Your task to perform on an android device: Search for "rayovac triple a" on ebay.com, select the first entry, add it to the cart, then select checkout. Image 0: 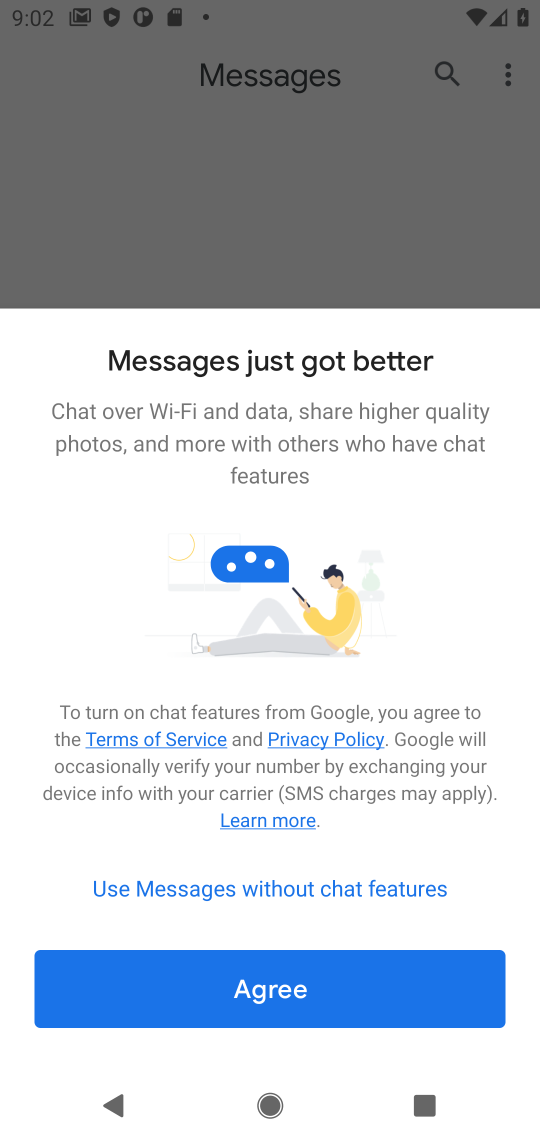
Step 0: press home button
Your task to perform on an android device: Search for "rayovac triple a" on ebay.com, select the first entry, add it to the cart, then select checkout. Image 1: 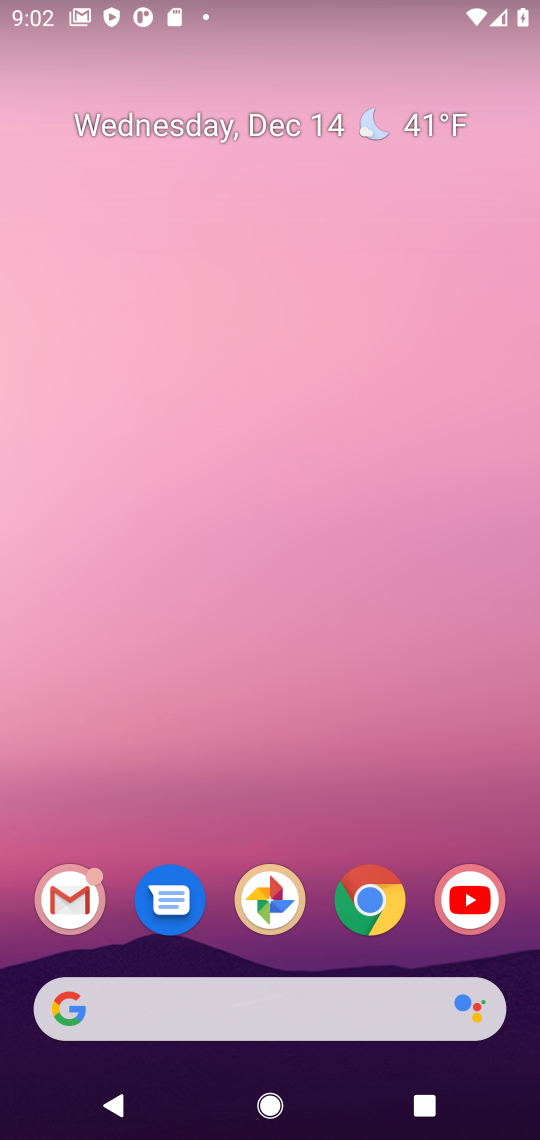
Step 1: click (361, 896)
Your task to perform on an android device: Search for "rayovac triple a" on ebay.com, select the first entry, add it to the cart, then select checkout. Image 2: 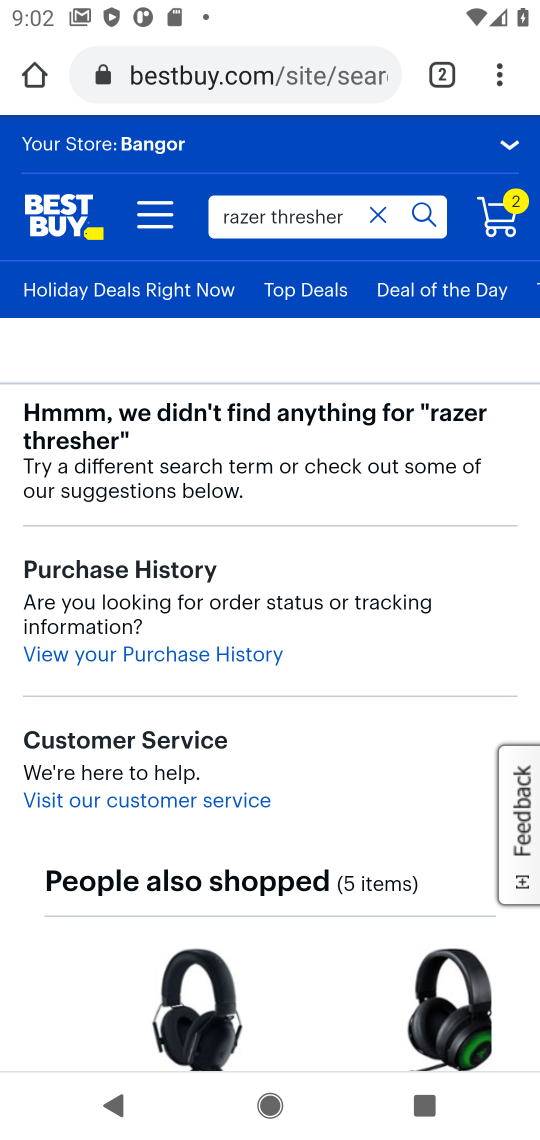
Step 2: click (214, 71)
Your task to perform on an android device: Search for "rayovac triple a" on ebay.com, select the first entry, add it to the cart, then select checkout. Image 3: 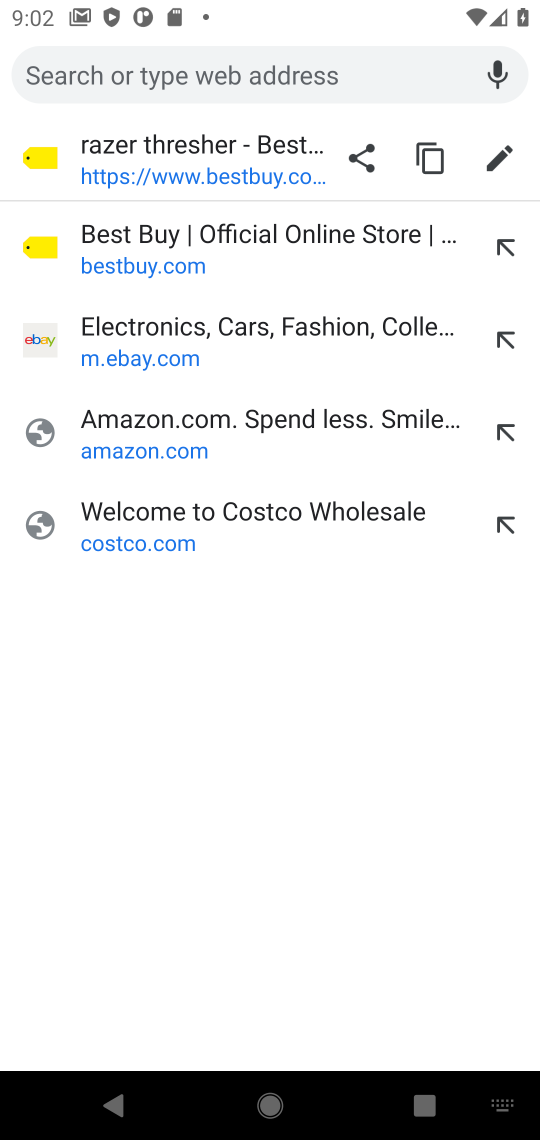
Step 3: click (133, 350)
Your task to perform on an android device: Search for "rayovac triple a" on ebay.com, select the first entry, add it to the cart, then select checkout. Image 4: 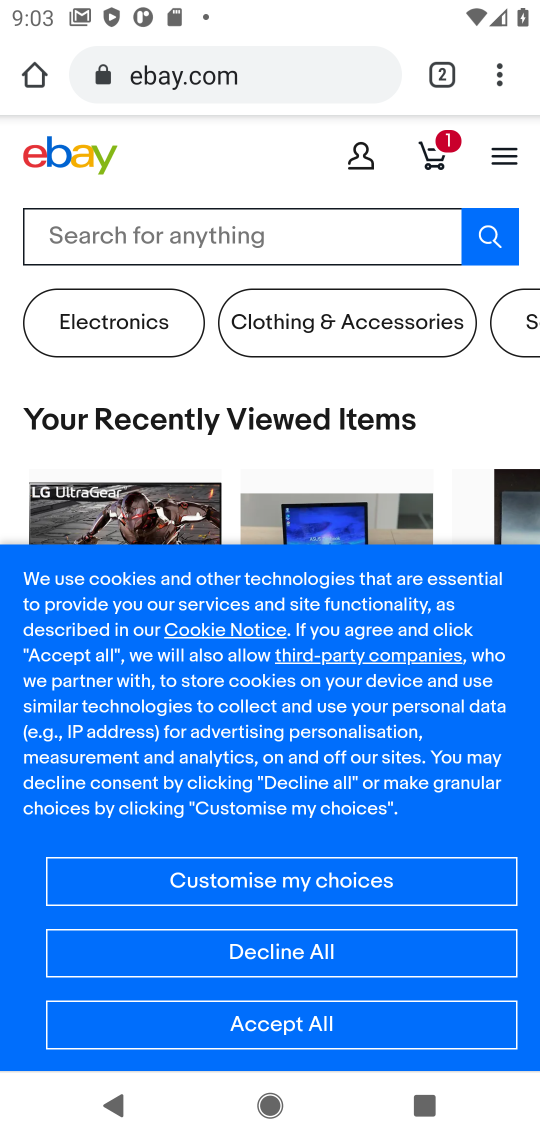
Step 4: click (164, 229)
Your task to perform on an android device: Search for "rayovac triple a" on ebay.com, select the first entry, add it to the cart, then select checkout. Image 5: 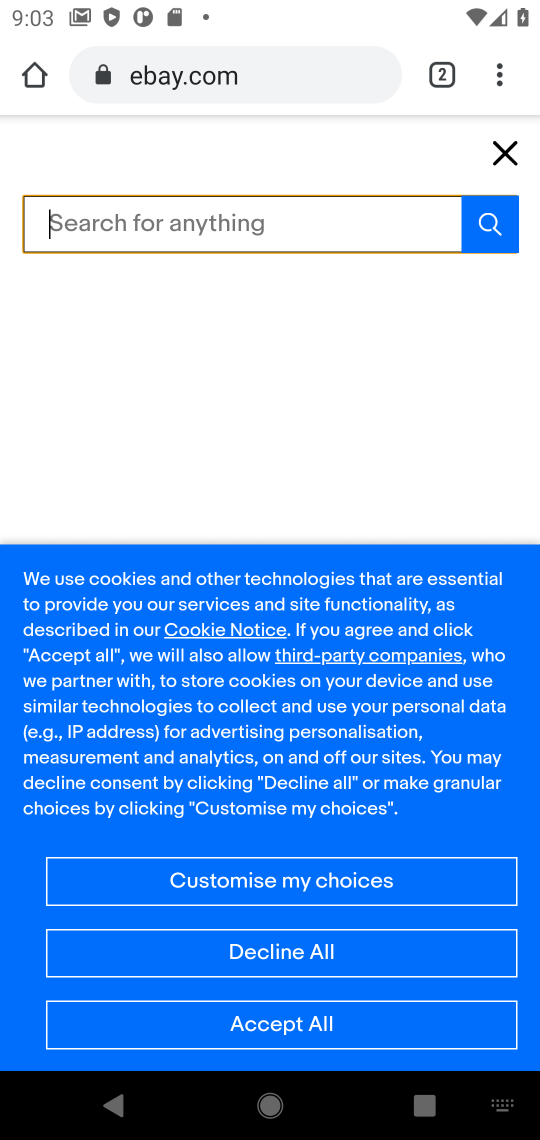
Step 5: type "rayovac triple a"
Your task to perform on an android device: Search for "rayovac triple a" on ebay.com, select the first entry, add it to the cart, then select checkout. Image 6: 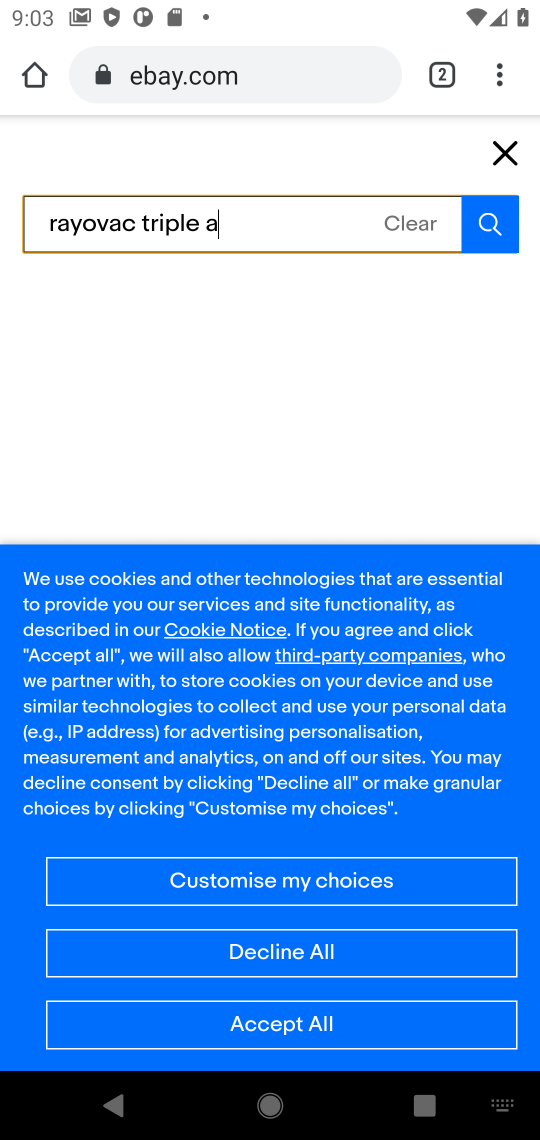
Step 6: click (486, 233)
Your task to perform on an android device: Search for "rayovac triple a" on ebay.com, select the first entry, add it to the cart, then select checkout. Image 7: 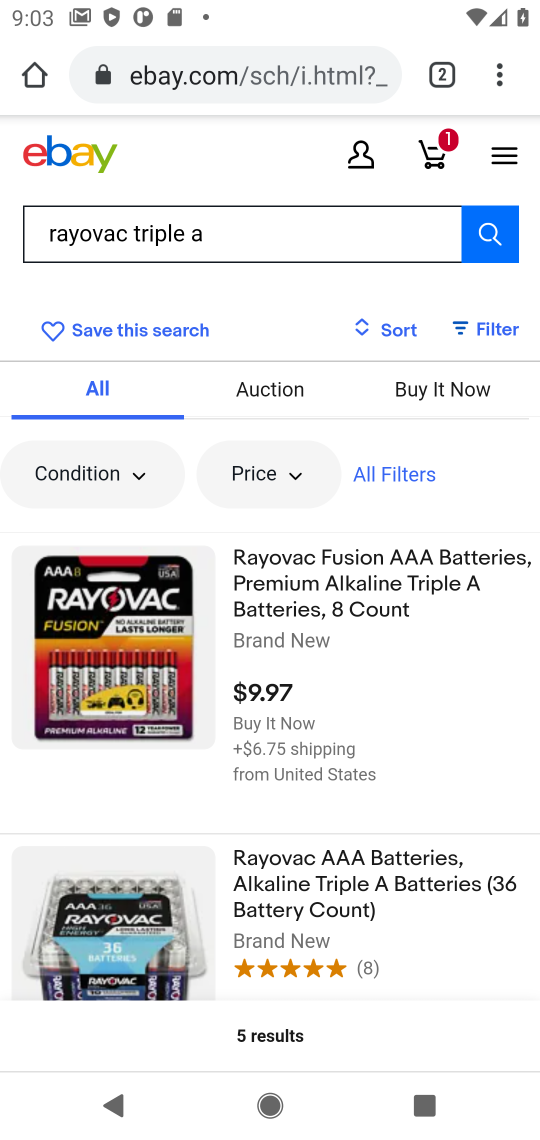
Step 7: click (298, 589)
Your task to perform on an android device: Search for "rayovac triple a" on ebay.com, select the first entry, add it to the cart, then select checkout. Image 8: 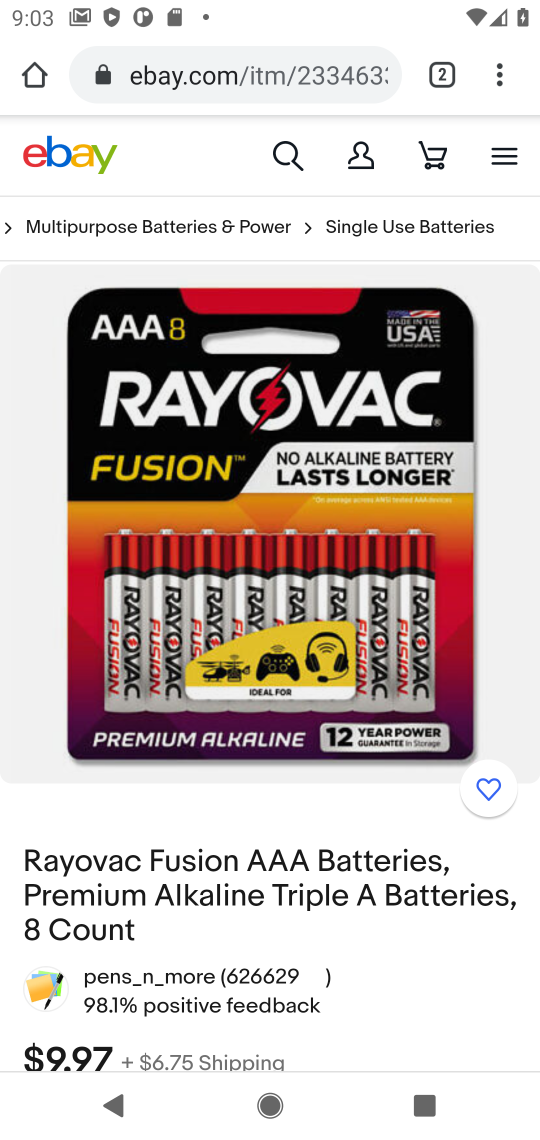
Step 8: drag from (233, 819) to (255, 345)
Your task to perform on an android device: Search for "rayovac triple a" on ebay.com, select the first entry, add it to the cart, then select checkout. Image 9: 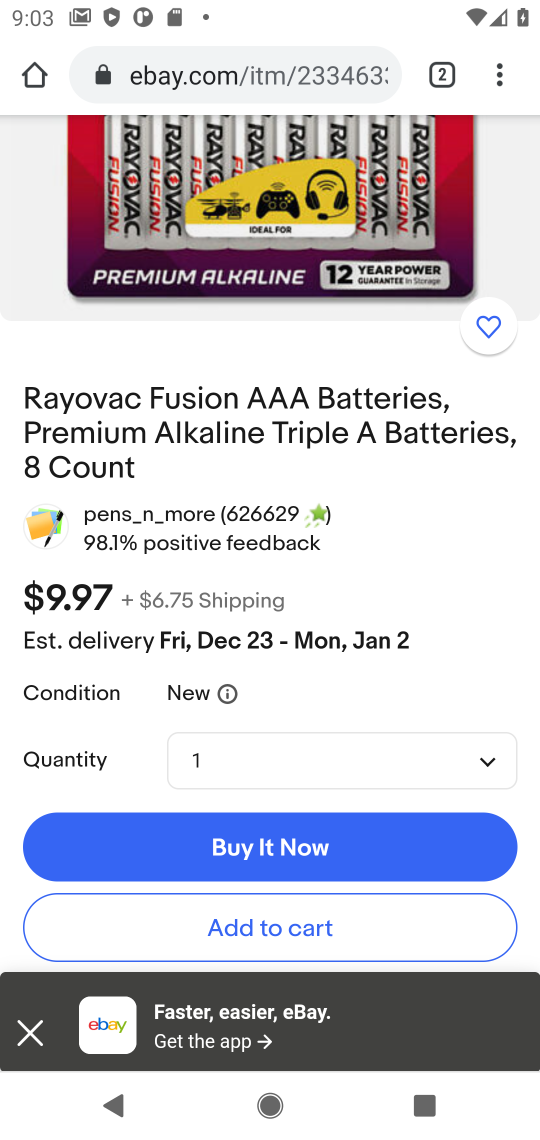
Step 9: click (221, 922)
Your task to perform on an android device: Search for "rayovac triple a" on ebay.com, select the first entry, add it to the cart, then select checkout. Image 10: 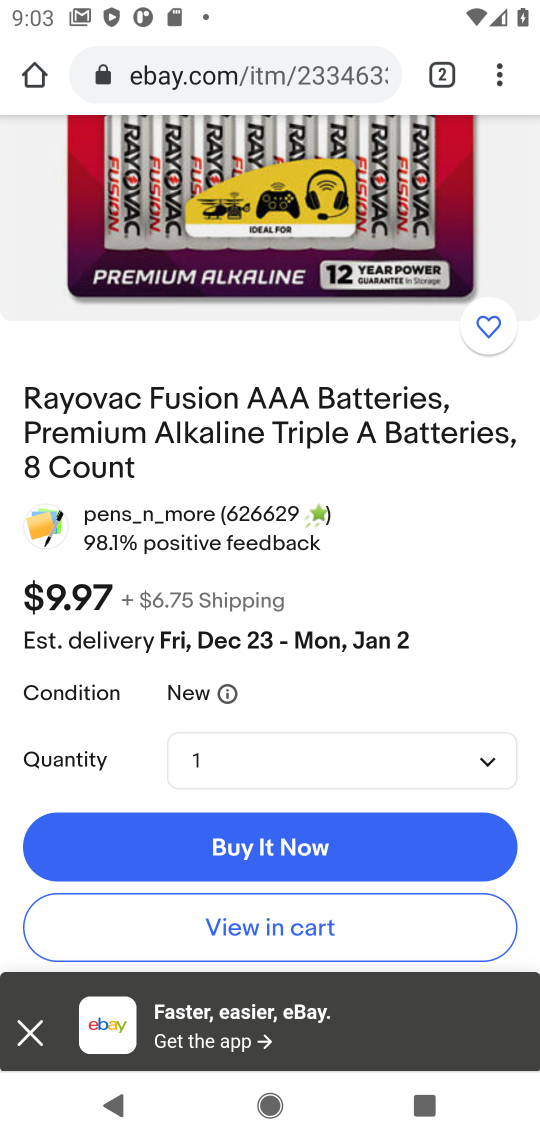
Step 10: click (221, 922)
Your task to perform on an android device: Search for "rayovac triple a" on ebay.com, select the first entry, add it to the cart, then select checkout. Image 11: 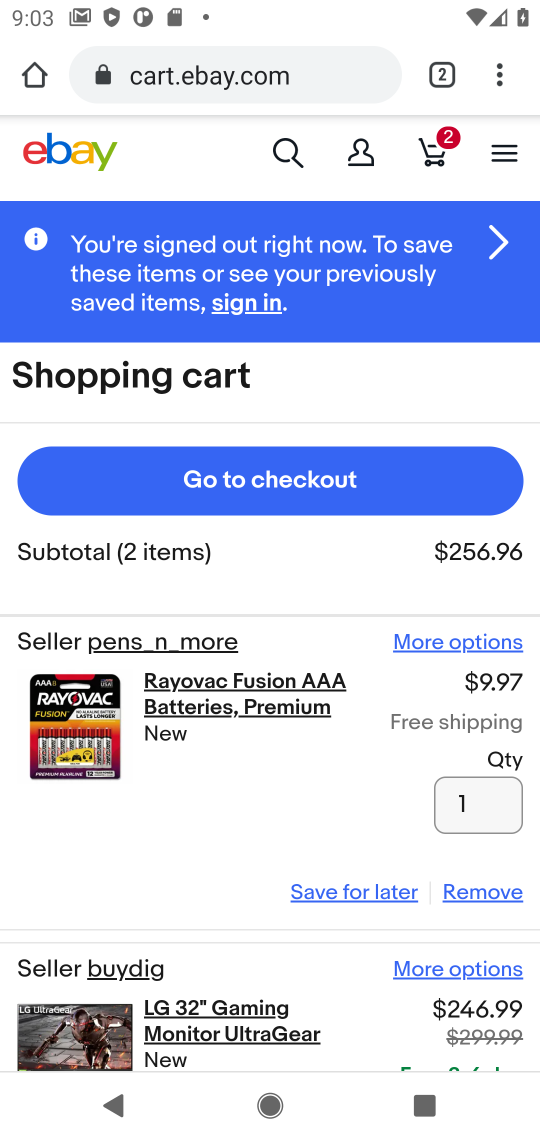
Step 11: click (234, 479)
Your task to perform on an android device: Search for "rayovac triple a" on ebay.com, select the first entry, add it to the cart, then select checkout. Image 12: 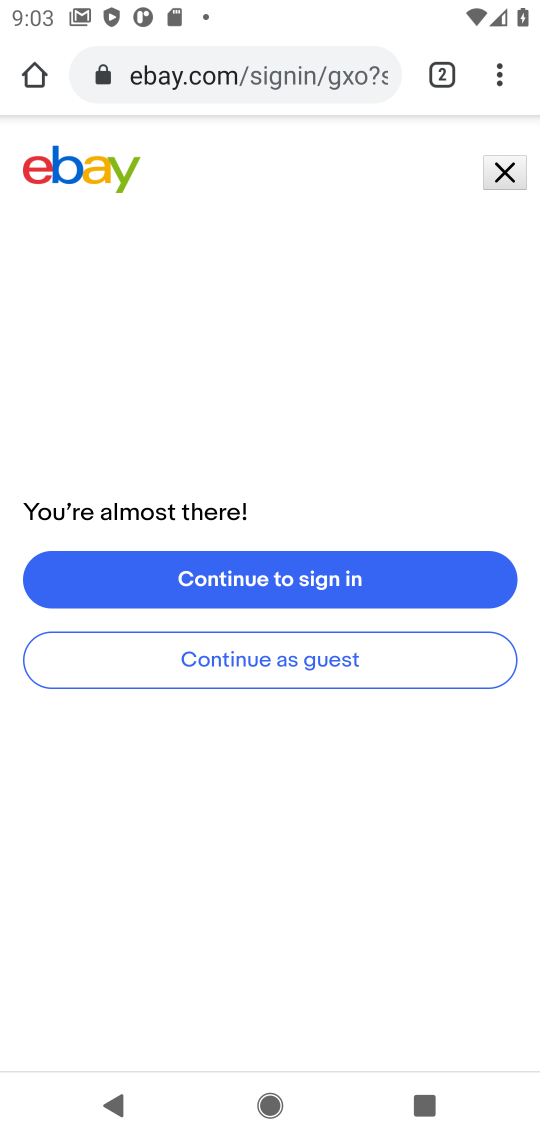
Step 12: task complete